Your task to perform on an android device: Open the stopwatch Image 0: 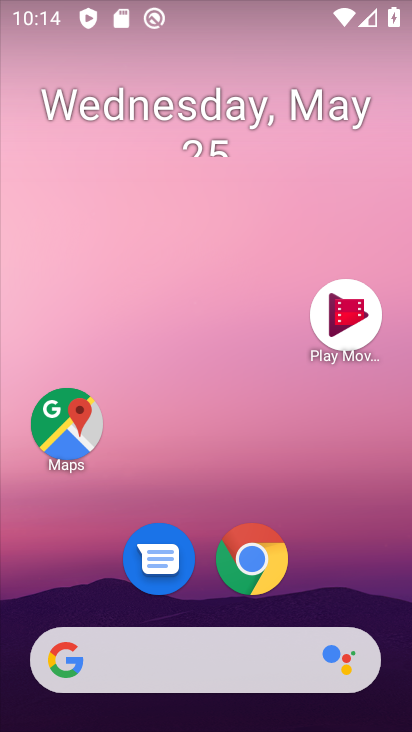
Step 0: click (309, 164)
Your task to perform on an android device: Open the stopwatch Image 1: 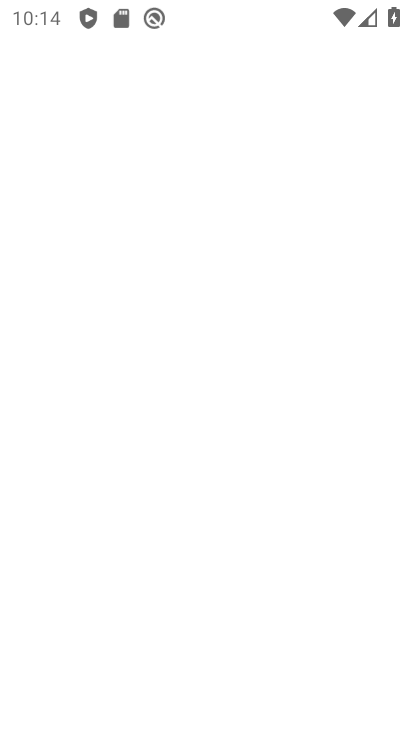
Step 1: press home button
Your task to perform on an android device: Open the stopwatch Image 2: 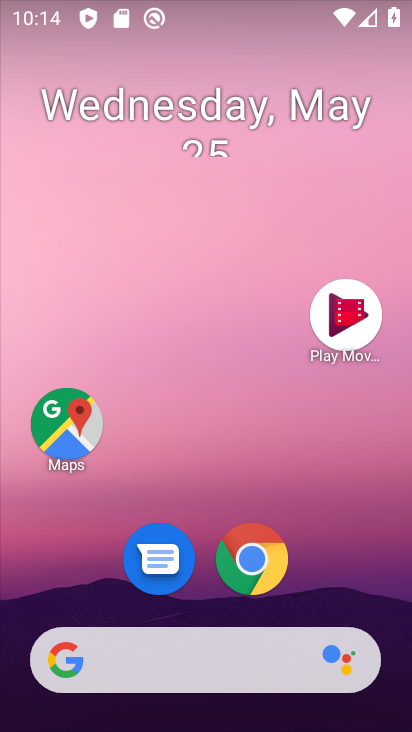
Step 2: drag from (330, 575) to (276, 250)
Your task to perform on an android device: Open the stopwatch Image 3: 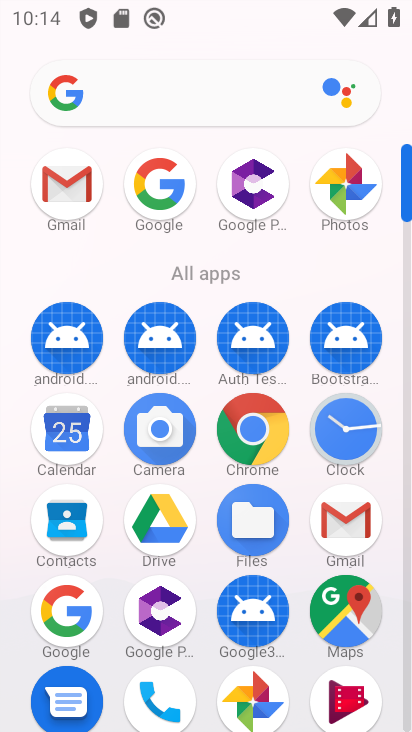
Step 3: click (350, 439)
Your task to perform on an android device: Open the stopwatch Image 4: 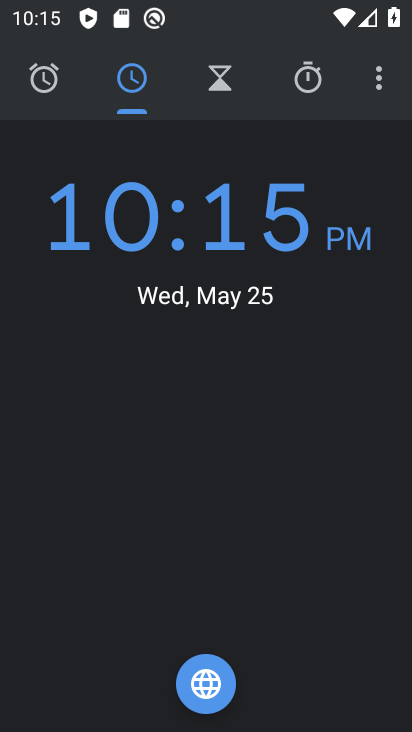
Step 4: click (311, 72)
Your task to perform on an android device: Open the stopwatch Image 5: 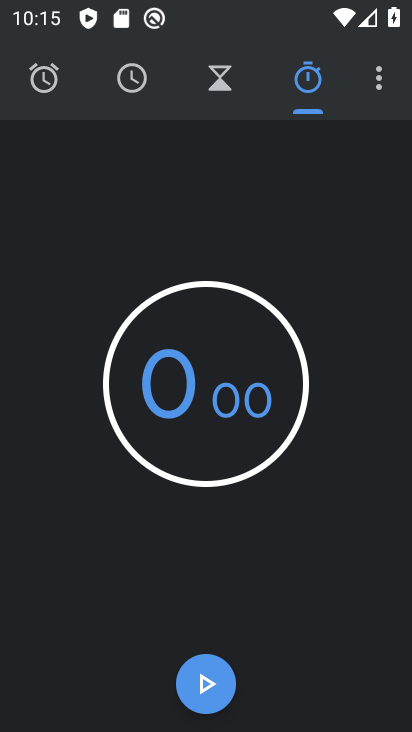
Step 5: task complete